Your task to perform on an android device: turn notification dots off Image 0: 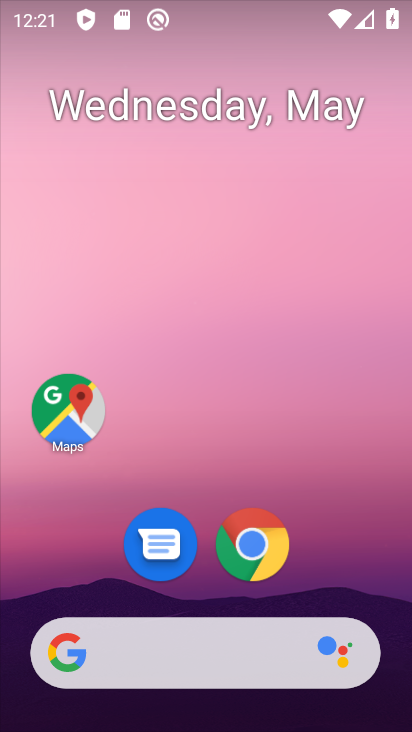
Step 0: drag from (406, 483) to (344, 207)
Your task to perform on an android device: turn notification dots off Image 1: 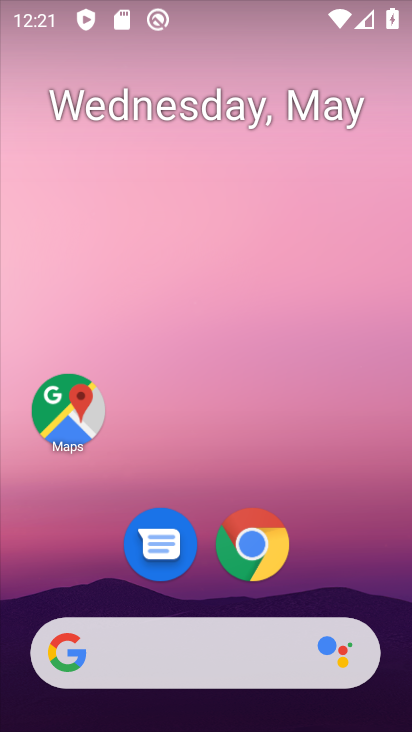
Step 1: drag from (376, 529) to (333, 134)
Your task to perform on an android device: turn notification dots off Image 2: 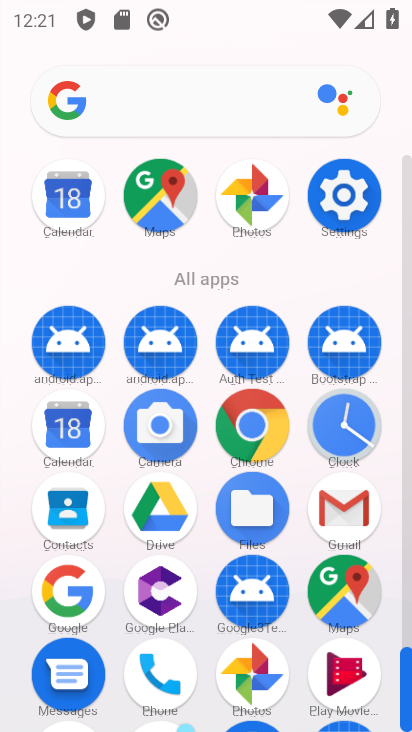
Step 2: click (330, 199)
Your task to perform on an android device: turn notification dots off Image 3: 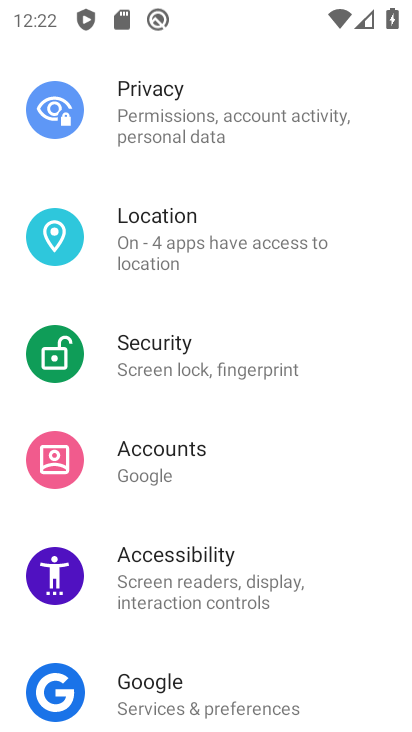
Step 3: drag from (166, 110) to (215, 549)
Your task to perform on an android device: turn notification dots off Image 4: 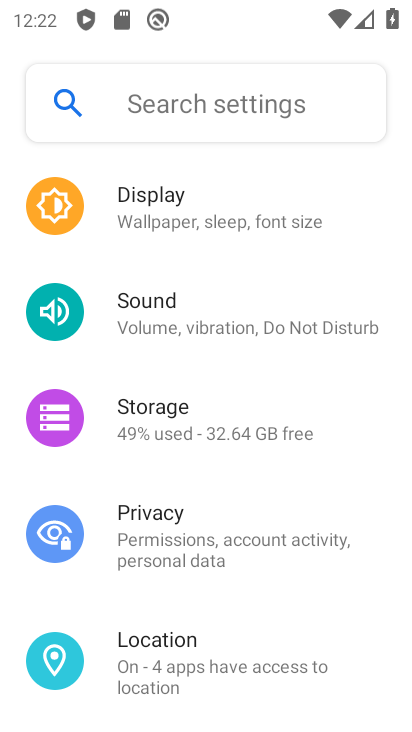
Step 4: drag from (217, 292) to (220, 663)
Your task to perform on an android device: turn notification dots off Image 5: 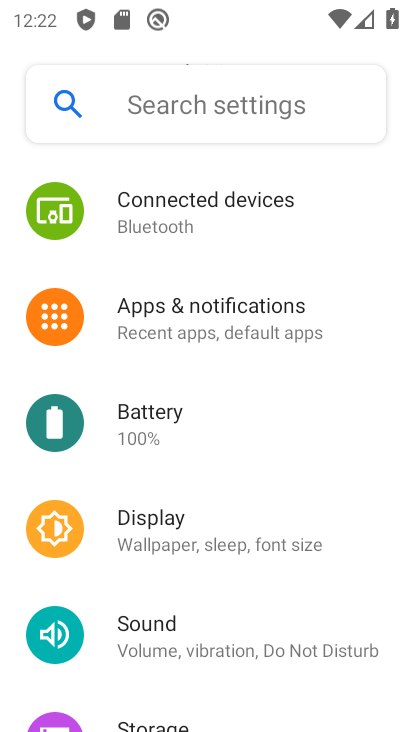
Step 5: click (196, 322)
Your task to perform on an android device: turn notification dots off Image 6: 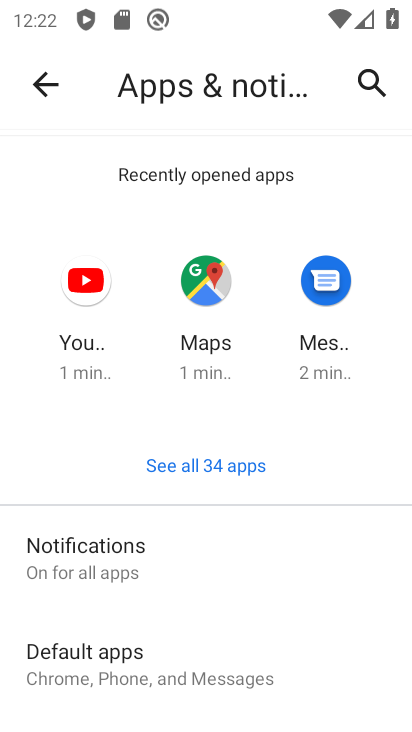
Step 6: click (61, 573)
Your task to perform on an android device: turn notification dots off Image 7: 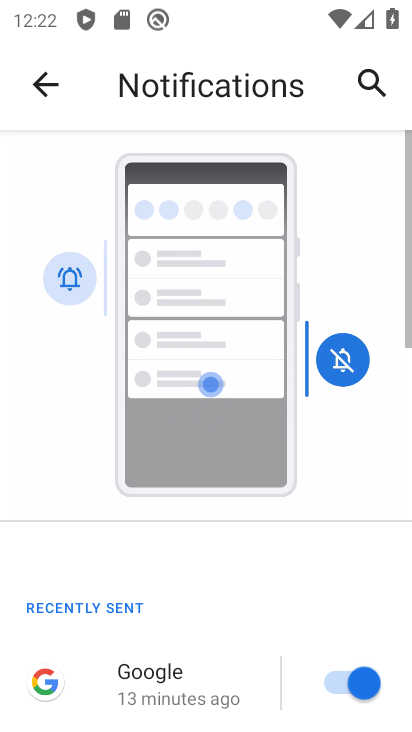
Step 7: drag from (232, 615) to (260, 61)
Your task to perform on an android device: turn notification dots off Image 8: 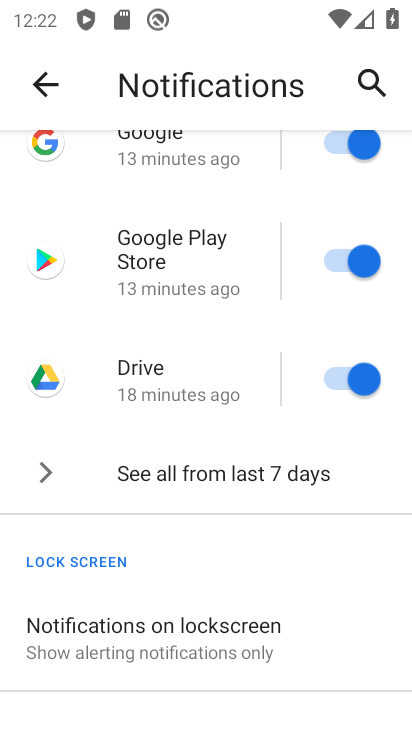
Step 8: drag from (255, 573) to (290, 42)
Your task to perform on an android device: turn notification dots off Image 9: 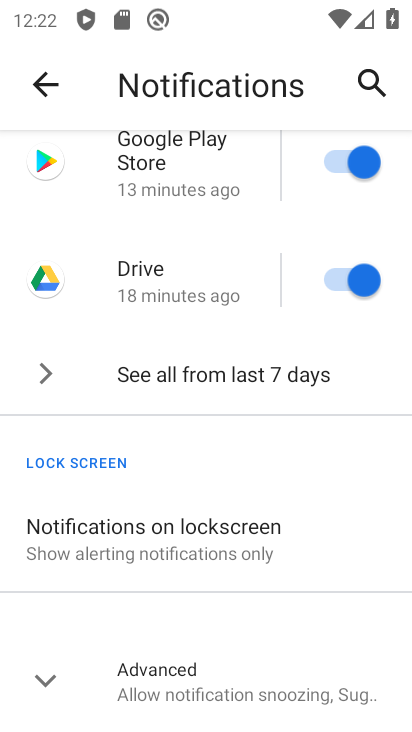
Step 9: click (212, 686)
Your task to perform on an android device: turn notification dots off Image 10: 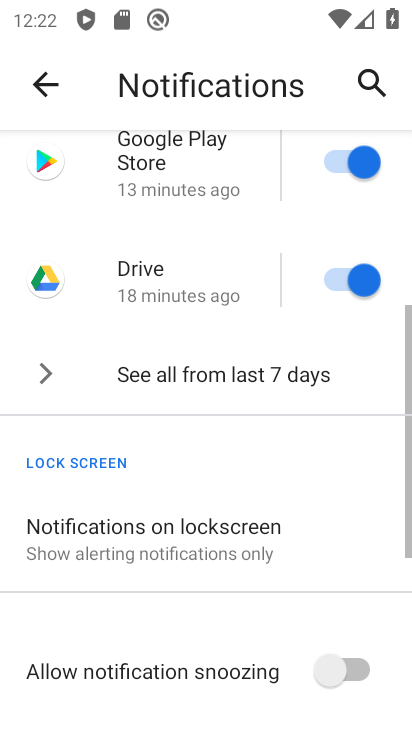
Step 10: drag from (283, 633) to (258, 136)
Your task to perform on an android device: turn notification dots off Image 11: 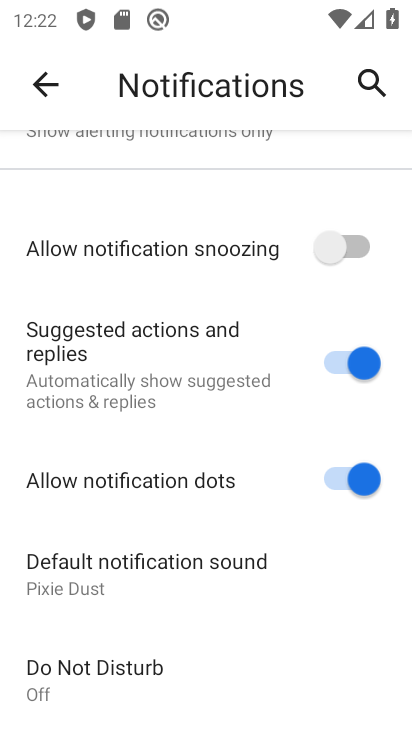
Step 11: click (330, 480)
Your task to perform on an android device: turn notification dots off Image 12: 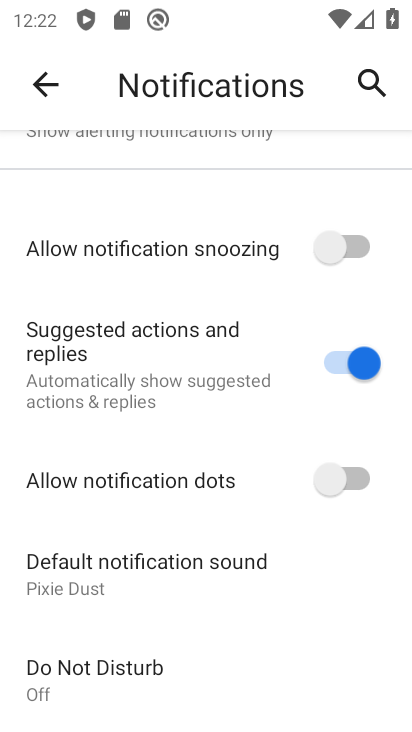
Step 12: task complete